Your task to perform on an android device: turn on improve location accuracy Image 0: 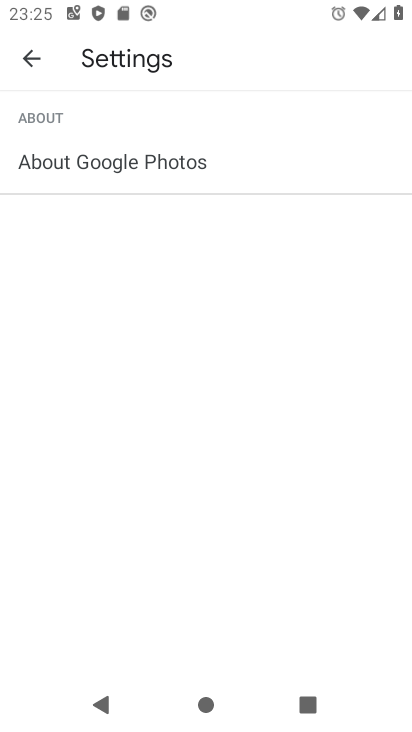
Step 0: drag from (210, 613) to (231, 155)
Your task to perform on an android device: turn on improve location accuracy Image 1: 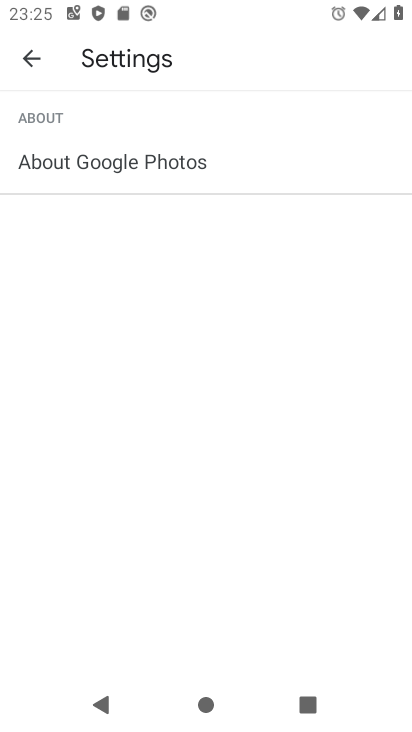
Step 1: press home button
Your task to perform on an android device: turn on improve location accuracy Image 2: 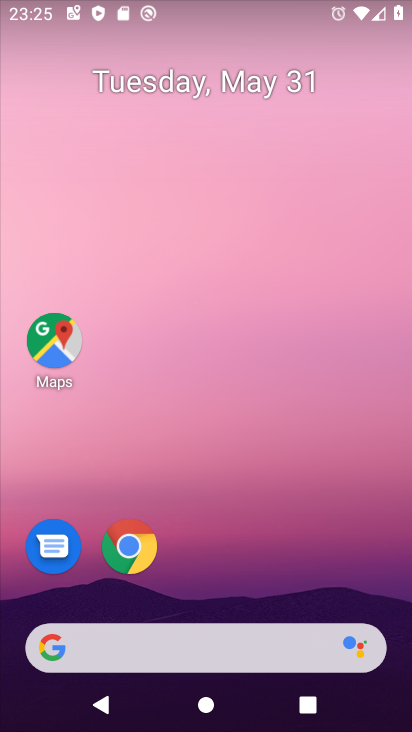
Step 2: drag from (197, 579) to (171, 86)
Your task to perform on an android device: turn on improve location accuracy Image 3: 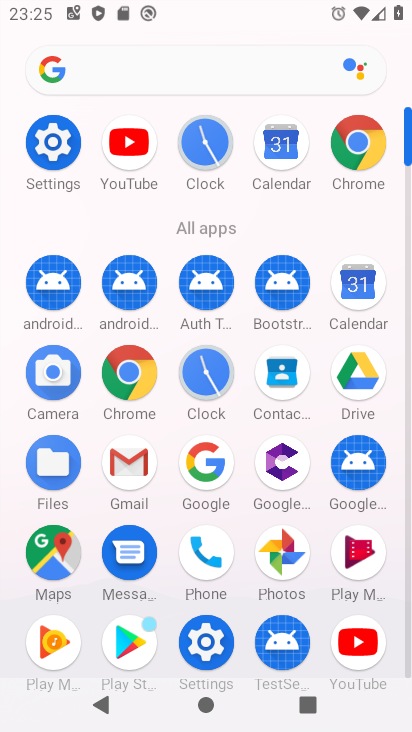
Step 3: click (59, 138)
Your task to perform on an android device: turn on improve location accuracy Image 4: 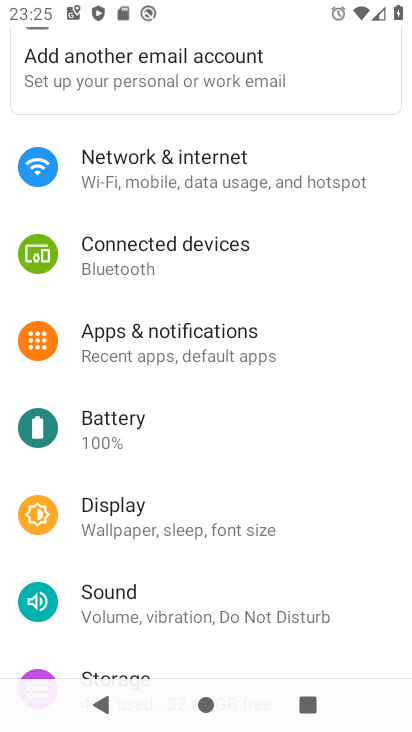
Step 4: drag from (227, 628) to (191, 217)
Your task to perform on an android device: turn on improve location accuracy Image 5: 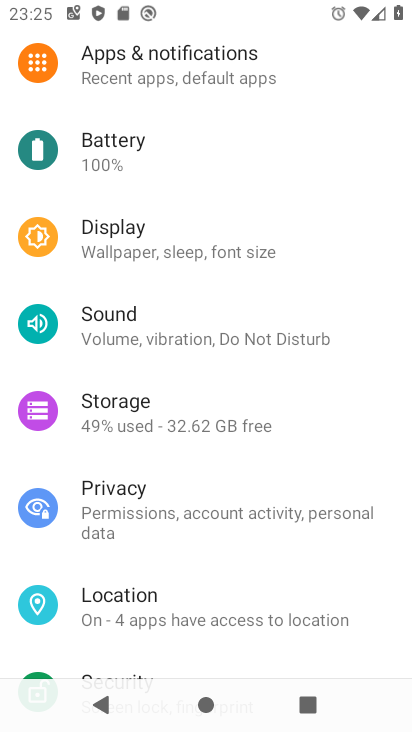
Step 5: click (215, 603)
Your task to perform on an android device: turn on improve location accuracy Image 6: 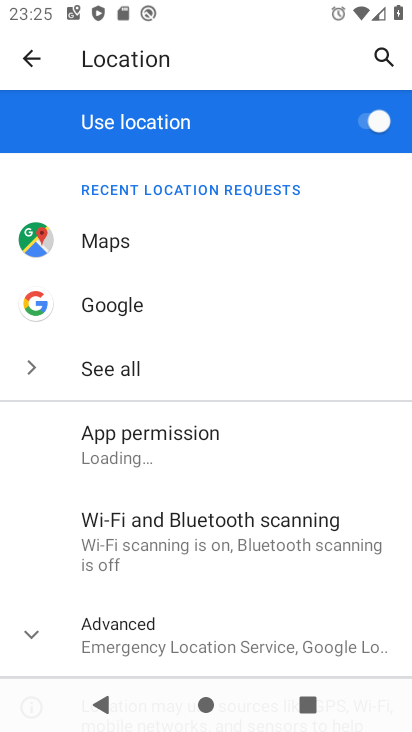
Step 6: drag from (215, 603) to (203, 404)
Your task to perform on an android device: turn on improve location accuracy Image 7: 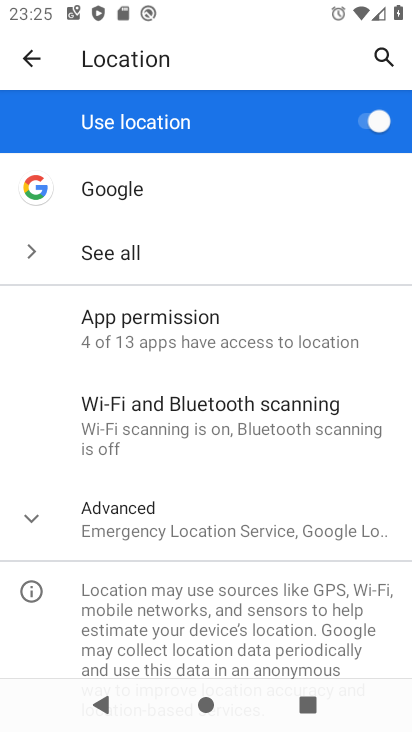
Step 7: click (236, 517)
Your task to perform on an android device: turn on improve location accuracy Image 8: 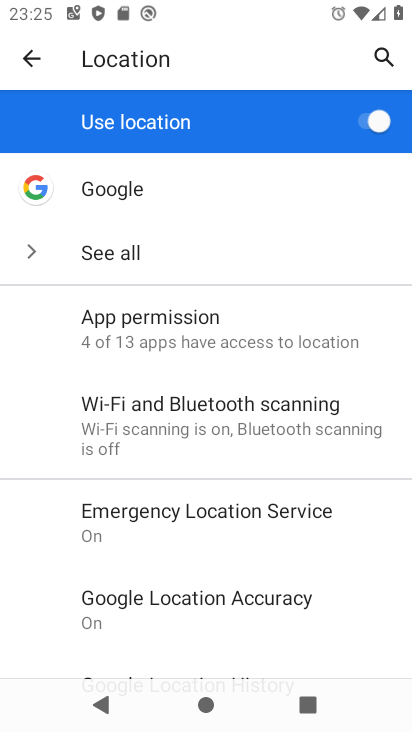
Step 8: click (266, 602)
Your task to perform on an android device: turn on improve location accuracy Image 9: 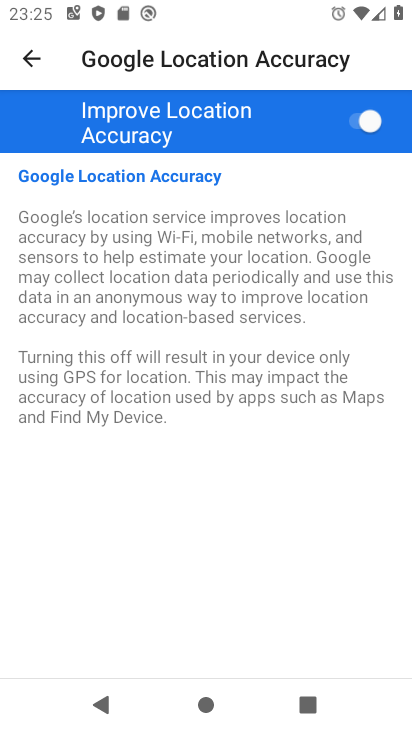
Step 9: task complete